Your task to perform on an android device: turn off smart reply in the gmail app Image 0: 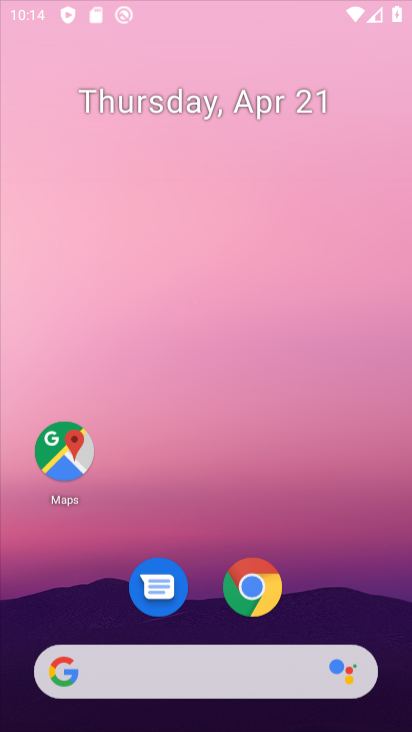
Step 0: click (150, 188)
Your task to perform on an android device: turn off smart reply in the gmail app Image 1: 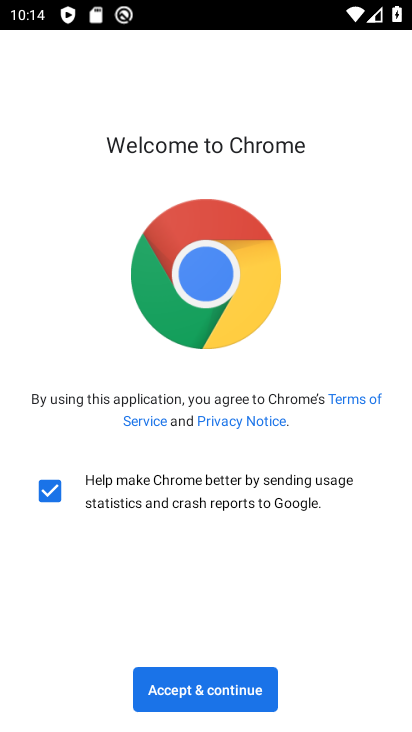
Step 1: press home button
Your task to perform on an android device: turn off smart reply in the gmail app Image 2: 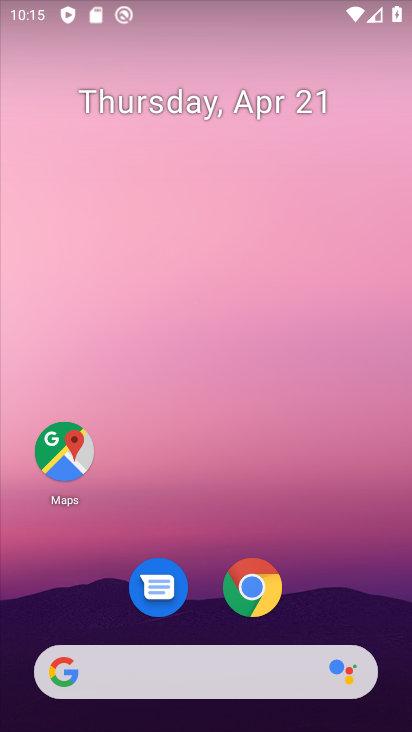
Step 2: drag from (191, 667) to (165, 163)
Your task to perform on an android device: turn off smart reply in the gmail app Image 3: 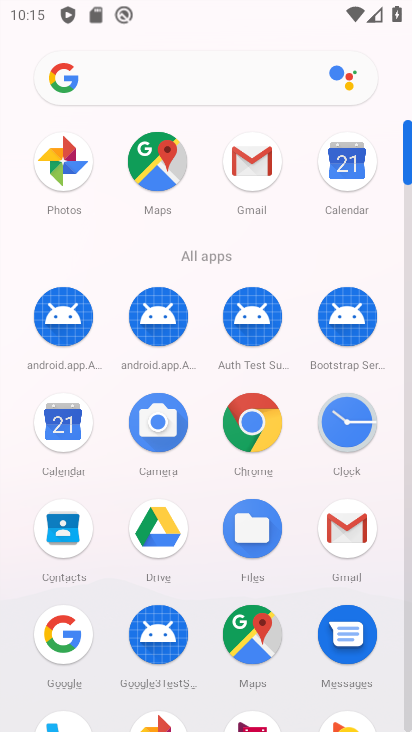
Step 3: click (250, 165)
Your task to perform on an android device: turn off smart reply in the gmail app Image 4: 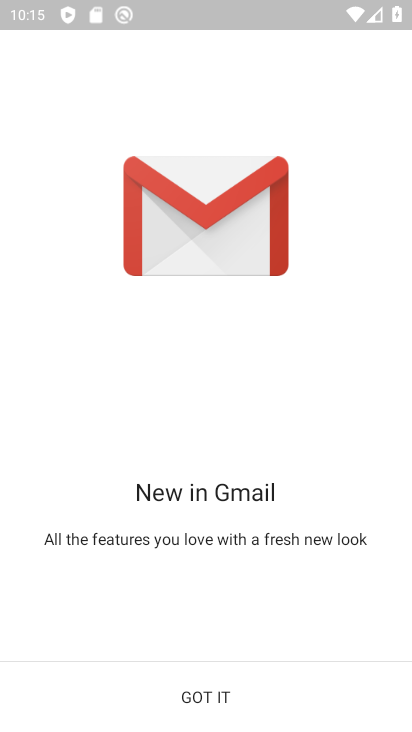
Step 4: click (171, 692)
Your task to perform on an android device: turn off smart reply in the gmail app Image 5: 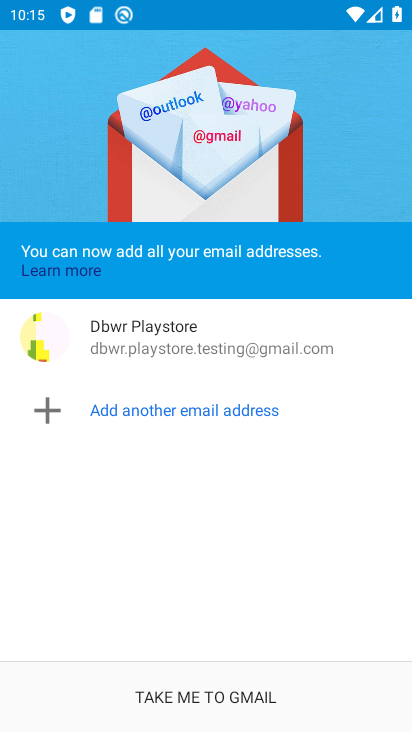
Step 5: click (242, 687)
Your task to perform on an android device: turn off smart reply in the gmail app Image 6: 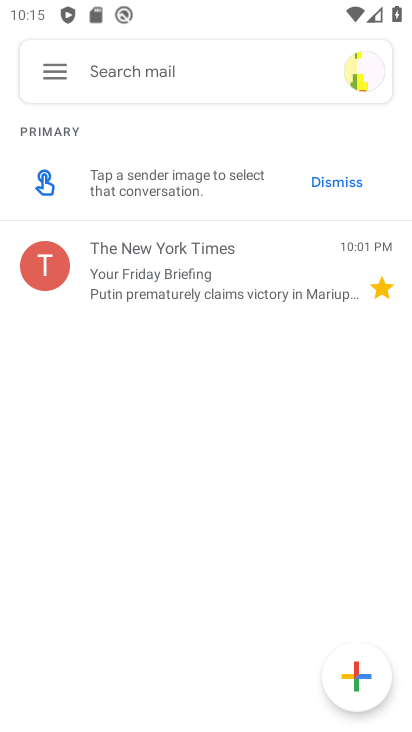
Step 6: click (49, 84)
Your task to perform on an android device: turn off smart reply in the gmail app Image 7: 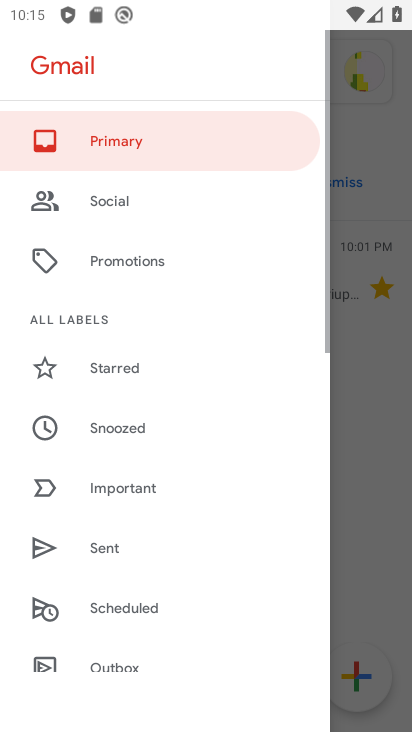
Step 7: drag from (179, 638) to (144, 155)
Your task to perform on an android device: turn off smart reply in the gmail app Image 8: 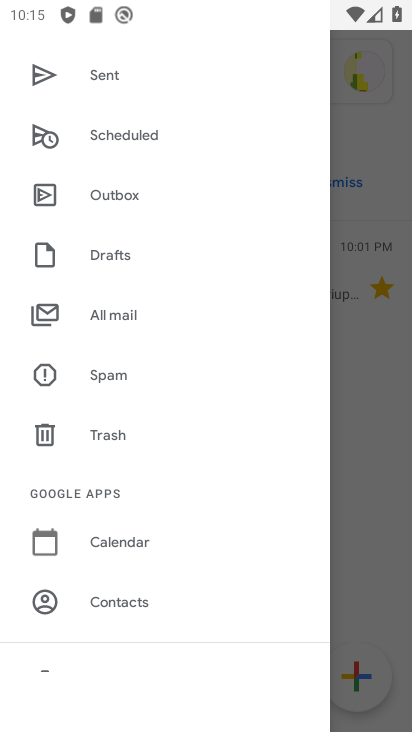
Step 8: drag from (128, 588) to (197, 75)
Your task to perform on an android device: turn off smart reply in the gmail app Image 9: 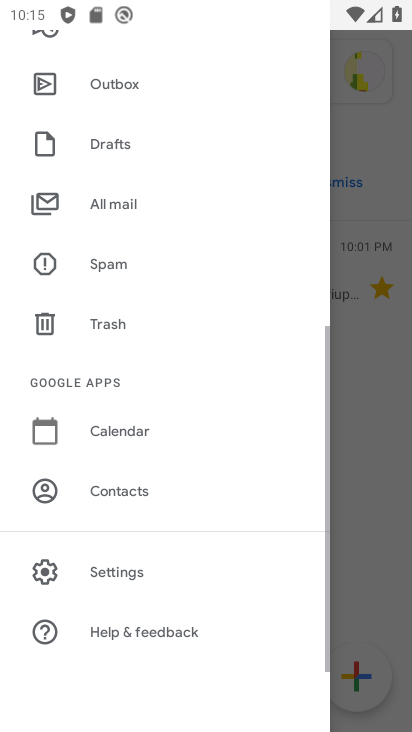
Step 9: click (138, 571)
Your task to perform on an android device: turn off smart reply in the gmail app Image 10: 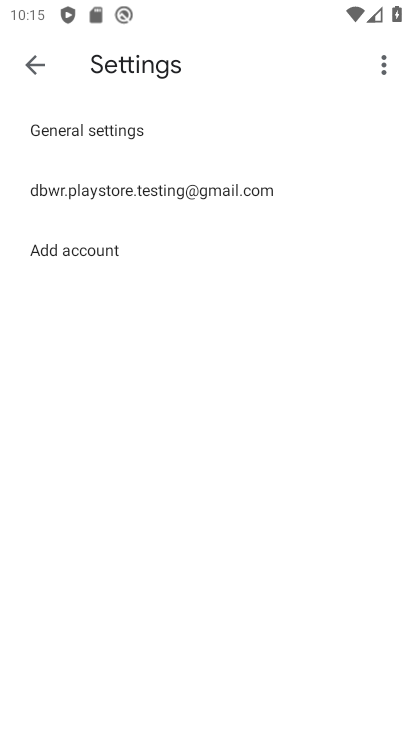
Step 10: click (65, 198)
Your task to perform on an android device: turn off smart reply in the gmail app Image 11: 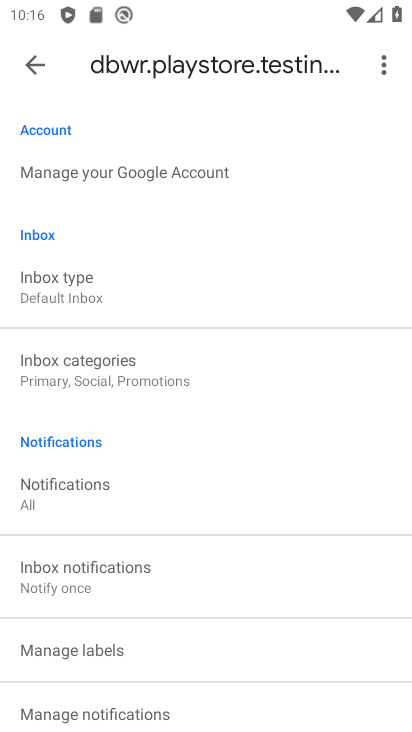
Step 11: drag from (152, 698) to (160, 32)
Your task to perform on an android device: turn off smart reply in the gmail app Image 12: 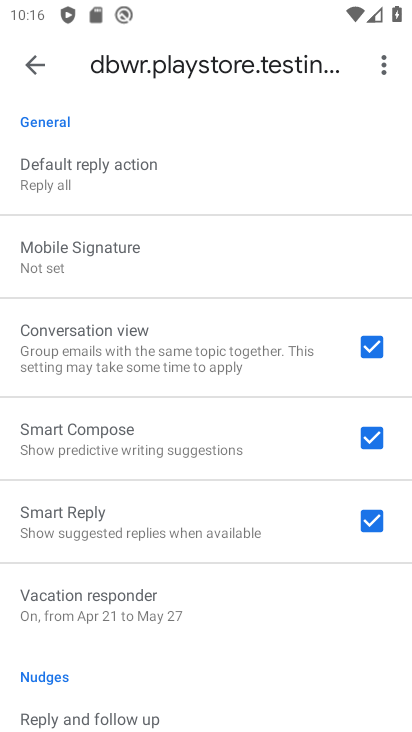
Step 12: click (380, 521)
Your task to perform on an android device: turn off smart reply in the gmail app Image 13: 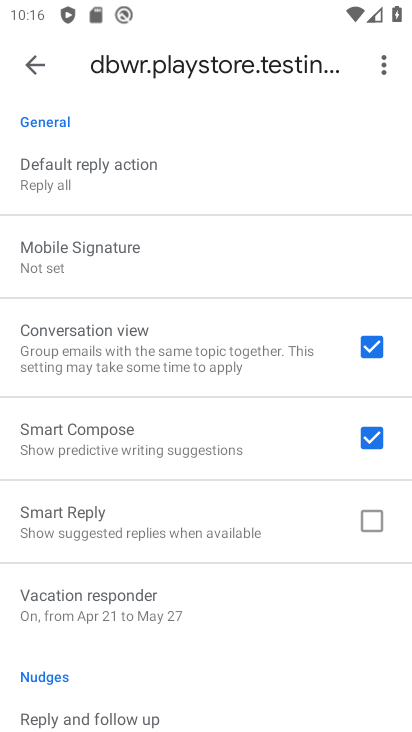
Step 13: task complete